Your task to perform on an android device: Clear the cart on costco.com. Search for "corsair k70" on costco.com, select the first entry, add it to the cart, then select checkout. Image 0: 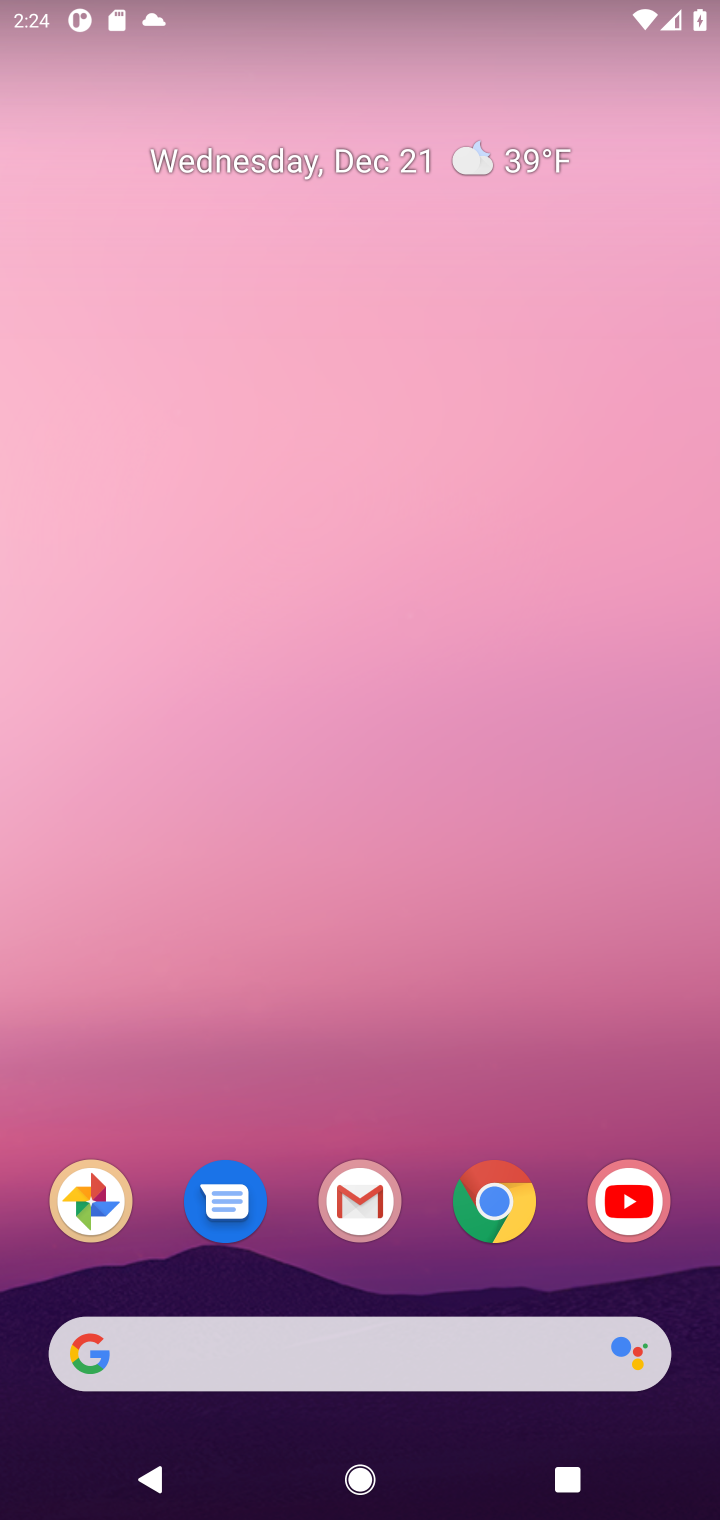
Step 0: click (502, 1204)
Your task to perform on an android device: Clear the cart on costco.com. Search for "corsair k70" on costco.com, select the first entry, add it to the cart, then select checkout. Image 1: 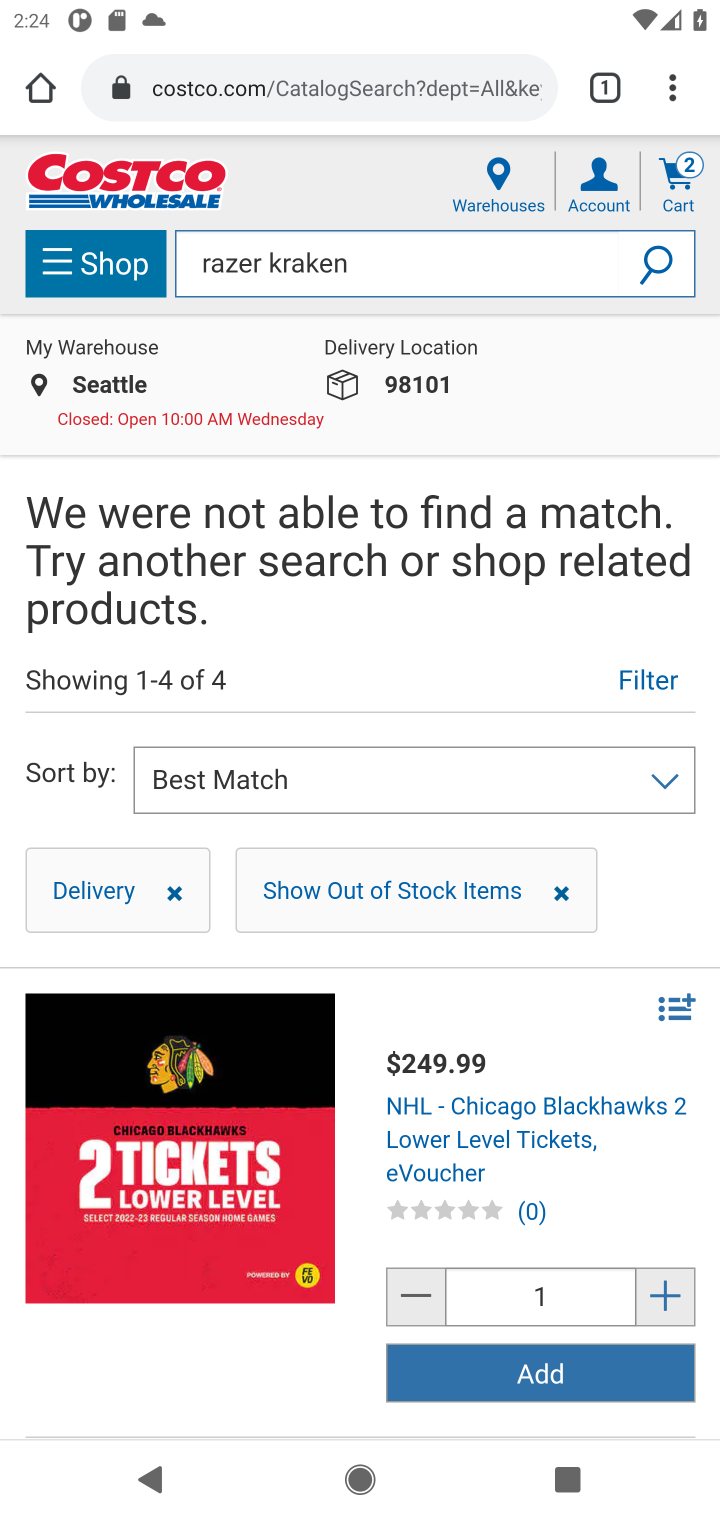
Step 1: click (668, 196)
Your task to perform on an android device: Clear the cart on costco.com. Search for "corsair k70" on costco.com, select the first entry, add it to the cart, then select checkout. Image 2: 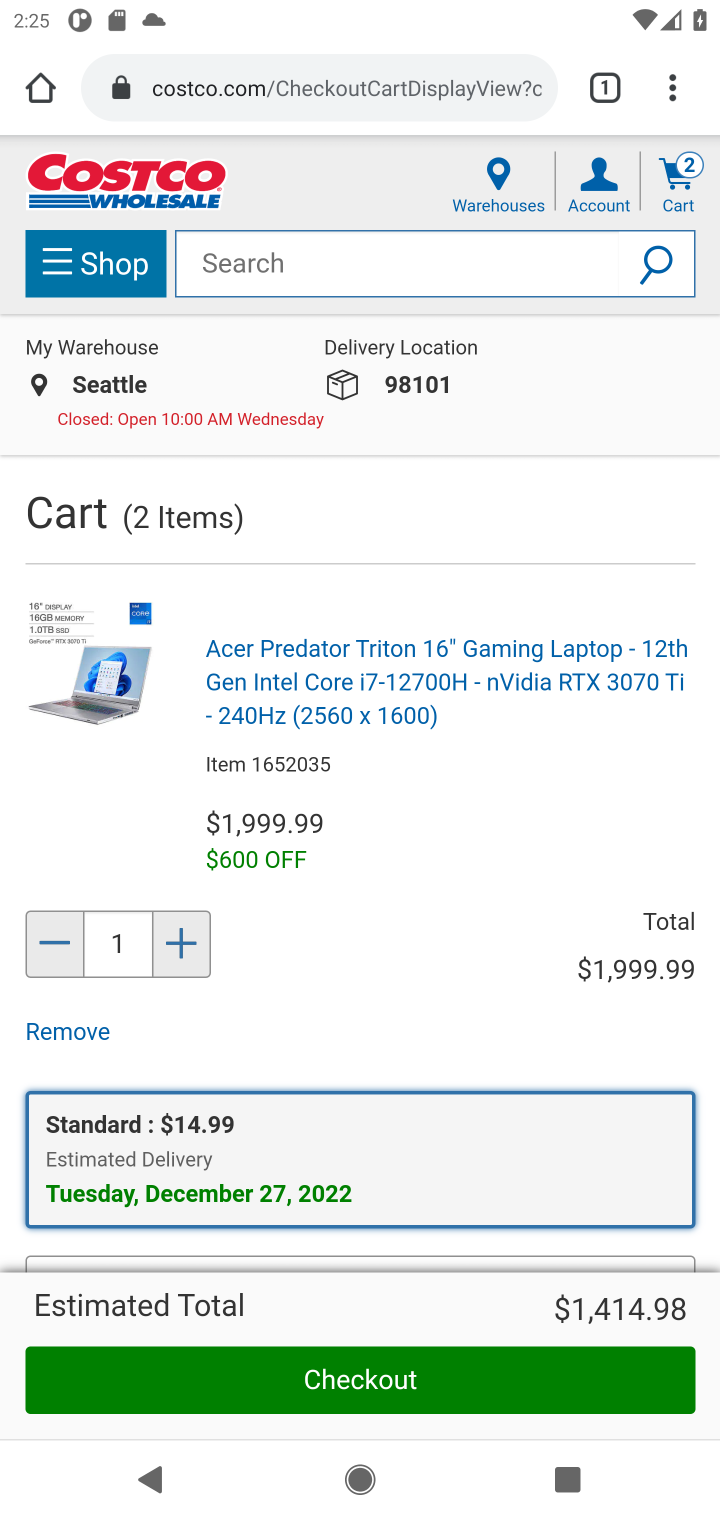
Step 2: drag from (407, 955) to (466, 575)
Your task to perform on an android device: Clear the cart on costco.com. Search for "corsair k70" on costco.com, select the first entry, add it to the cart, then select checkout. Image 3: 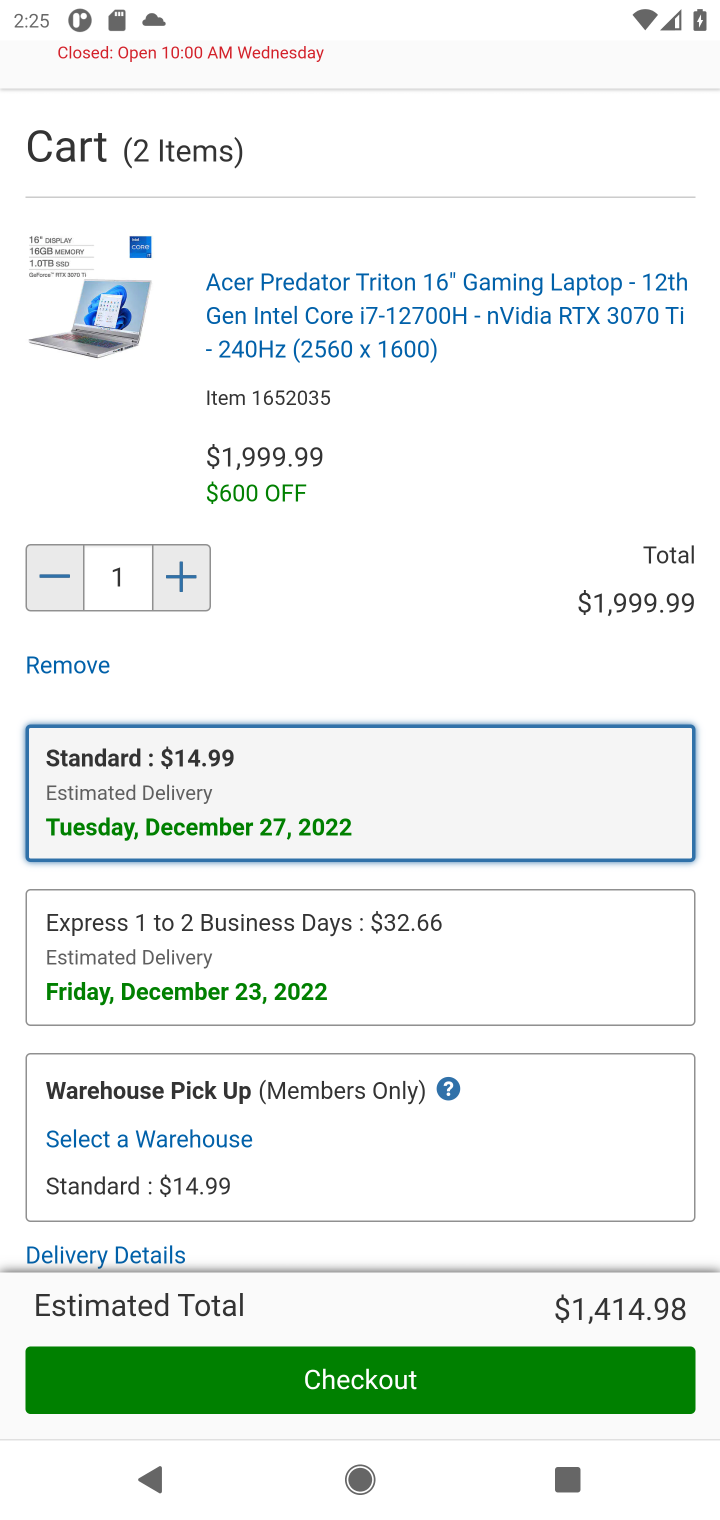
Step 3: drag from (401, 1037) to (467, 622)
Your task to perform on an android device: Clear the cart on costco.com. Search for "corsair k70" on costco.com, select the first entry, add it to the cart, then select checkout. Image 4: 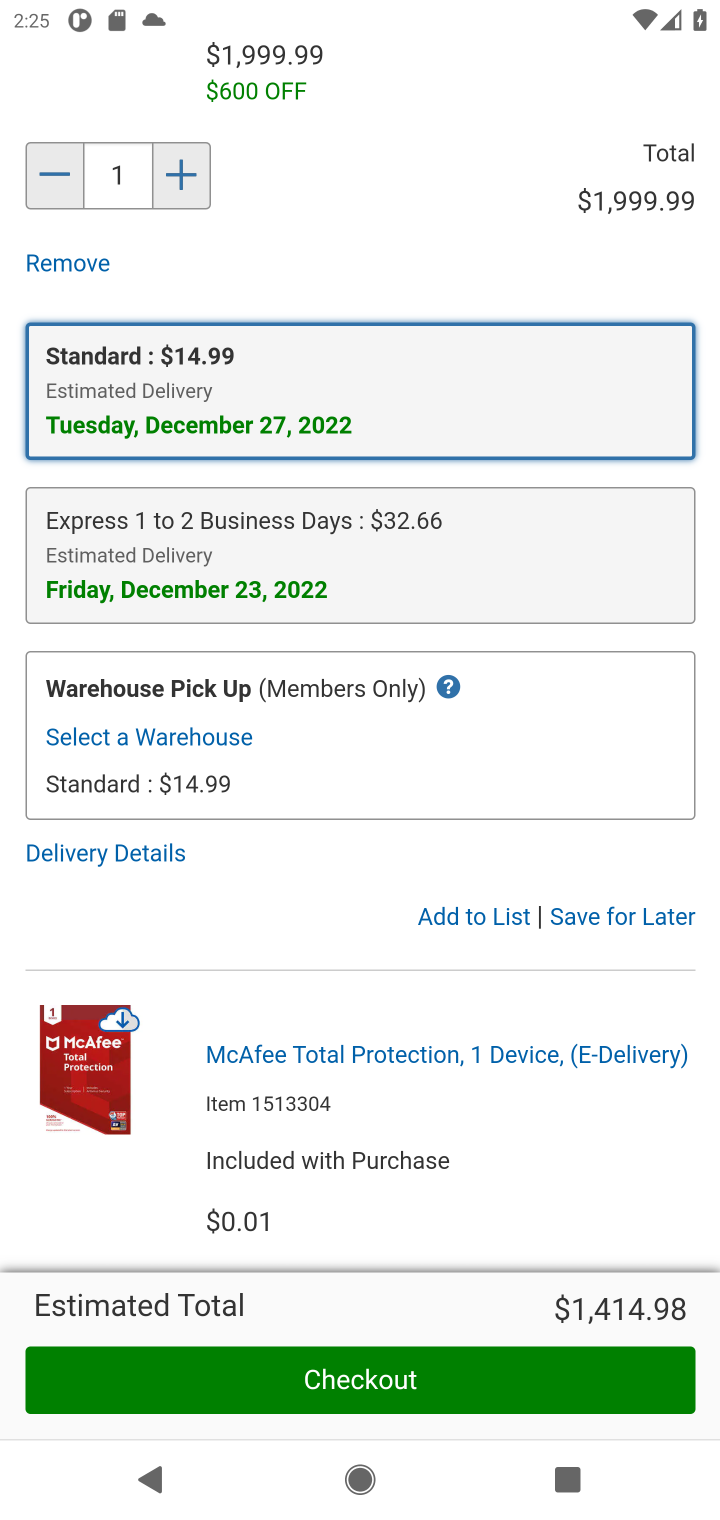
Step 4: click (651, 928)
Your task to perform on an android device: Clear the cart on costco.com. Search for "corsair k70" on costco.com, select the first entry, add it to the cart, then select checkout. Image 5: 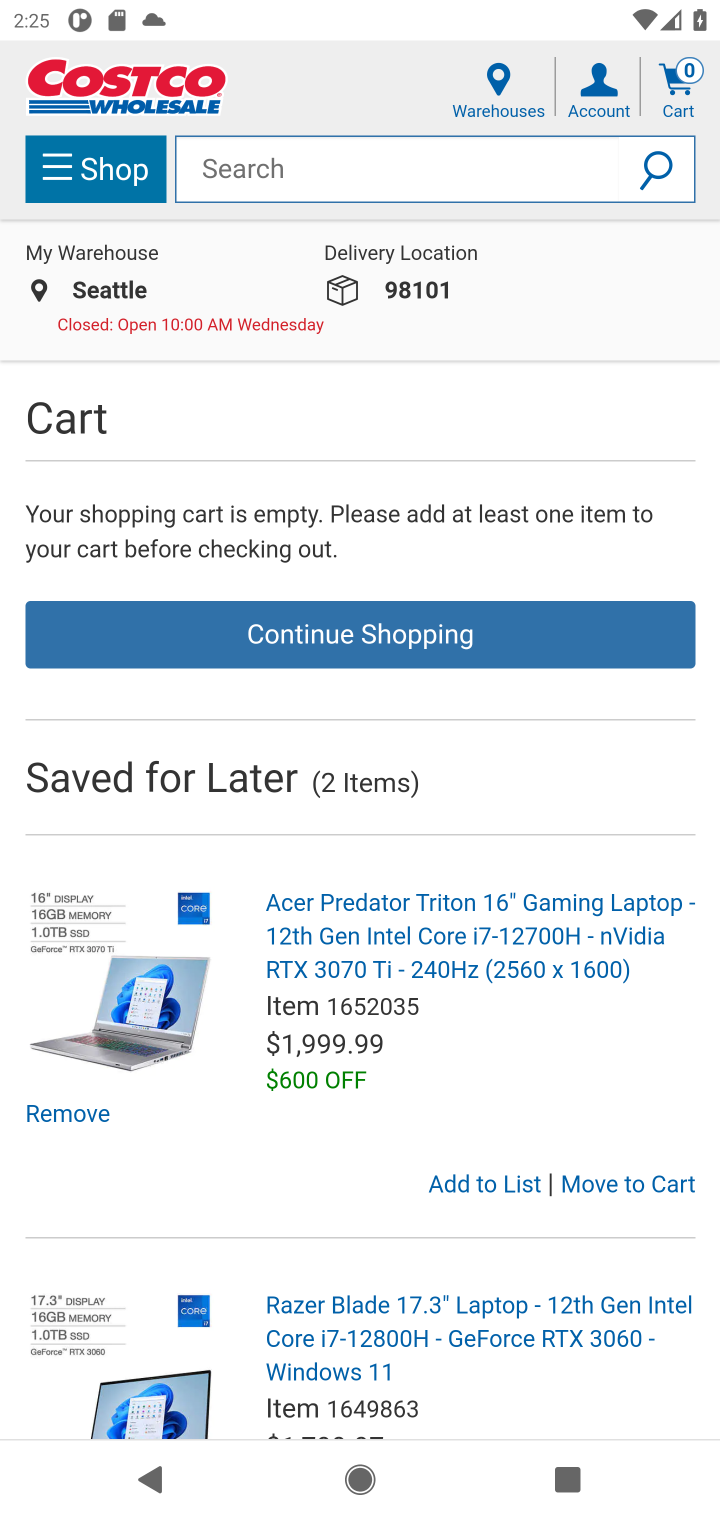
Step 5: click (227, 180)
Your task to perform on an android device: Clear the cart on costco.com. Search for "corsair k70" on costco.com, select the first entry, add it to the cart, then select checkout. Image 6: 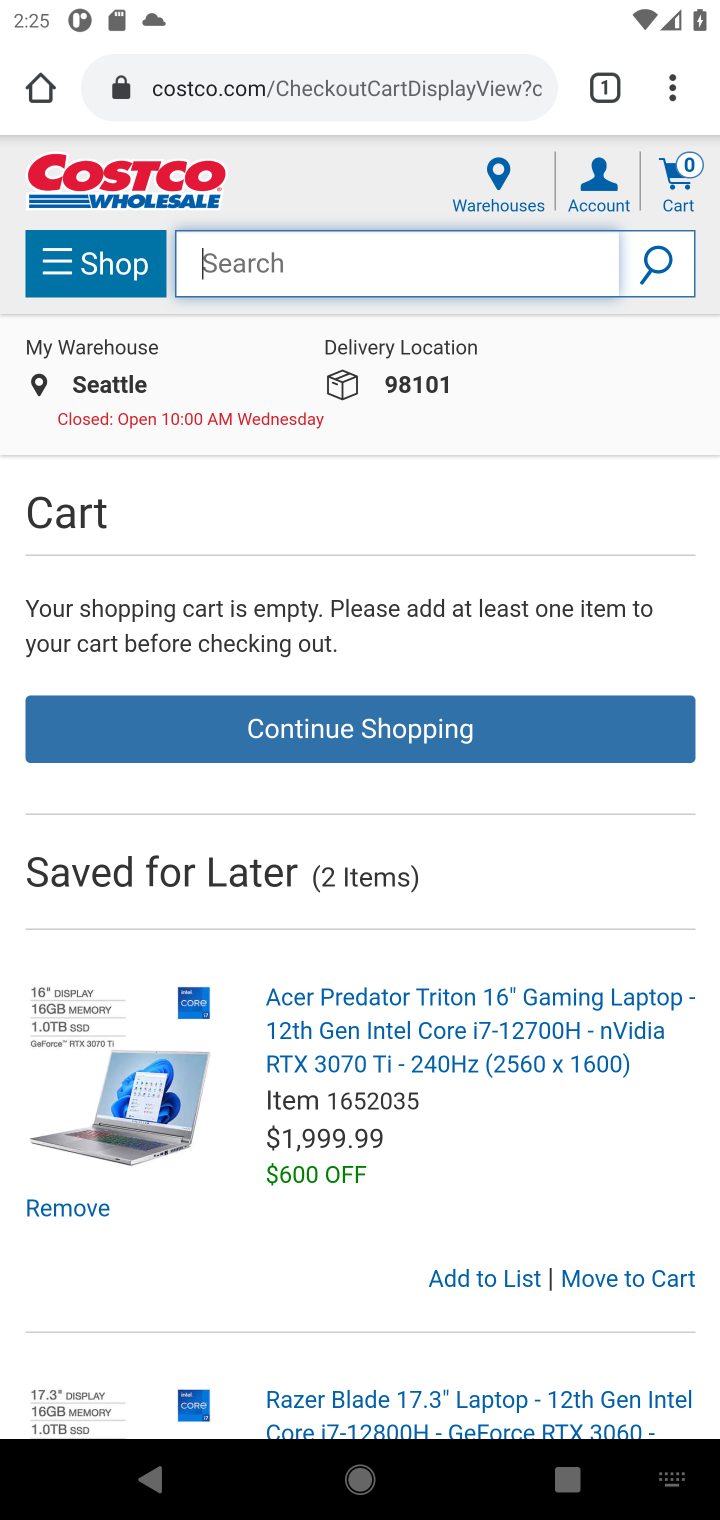
Step 6: type "corsair k70"
Your task to perform on an android device: Clear the cart on costco.com. Search for "corsair k70" on costco.com, select the first entry, add it to the cart, then select checkout. Image 7: 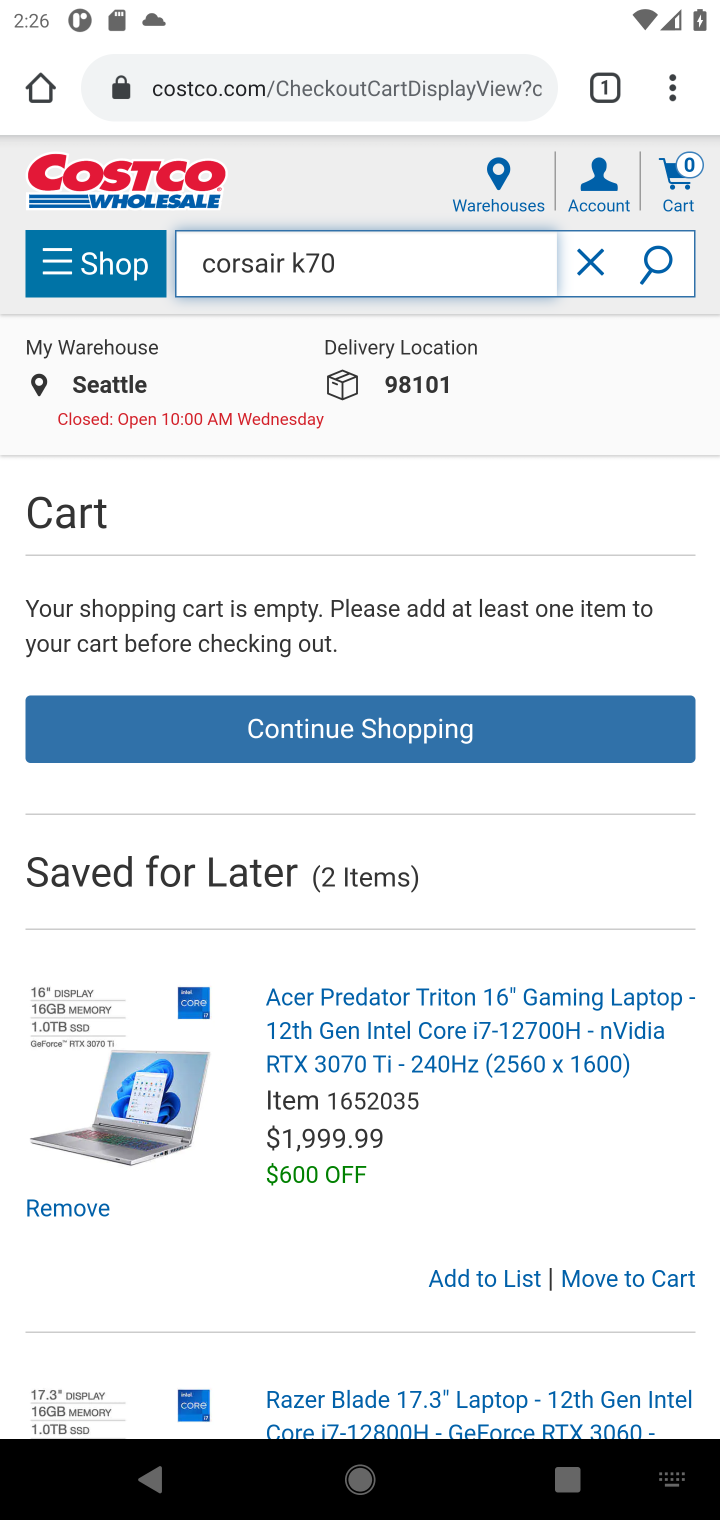
Step 7: click (662, 262)
Your task to perform on an android device: Clear the cart on costco.com. Search for "corsair k70" on costco.com, select the first entry, add it to the cart, then select checkout. Image 8: 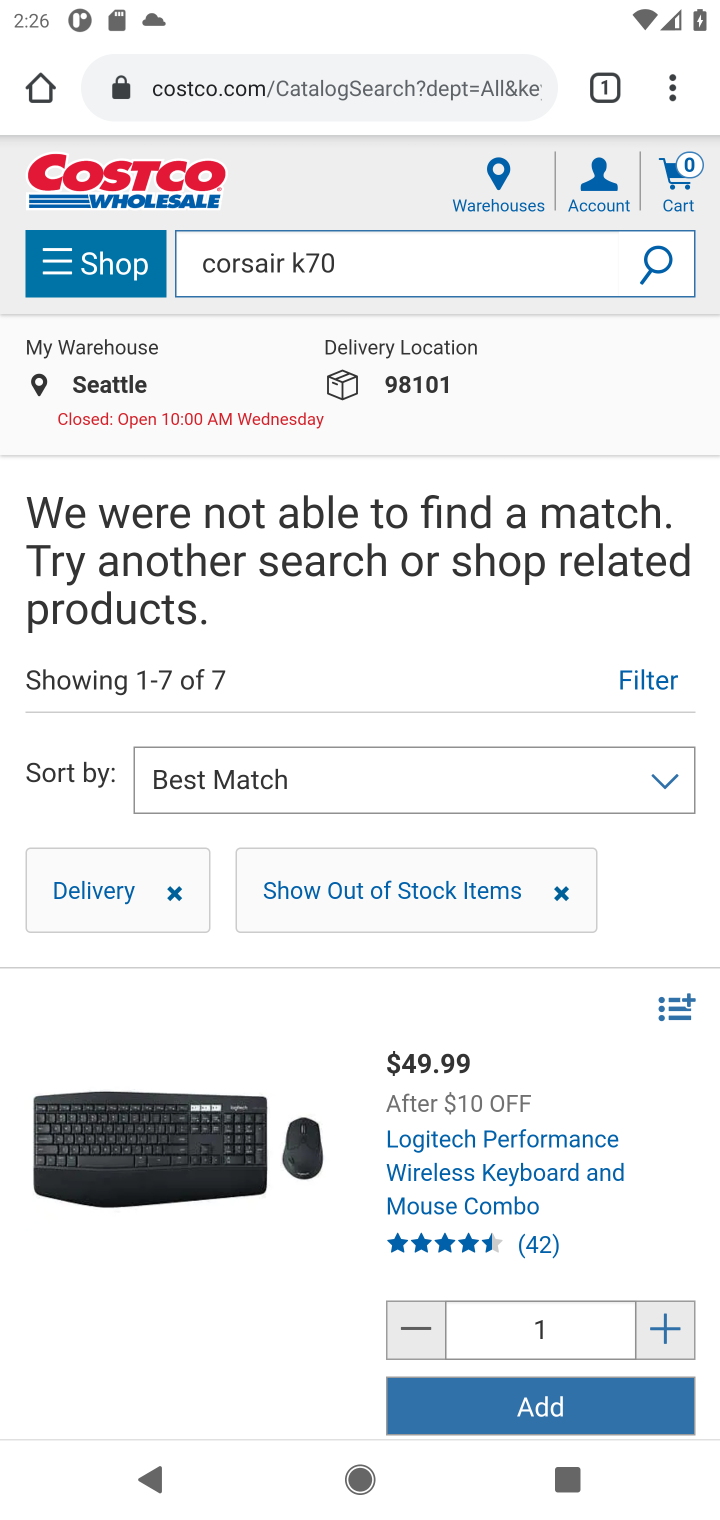
Step 8: task complete